Your task to perform on an android device: check battery use Image 0: 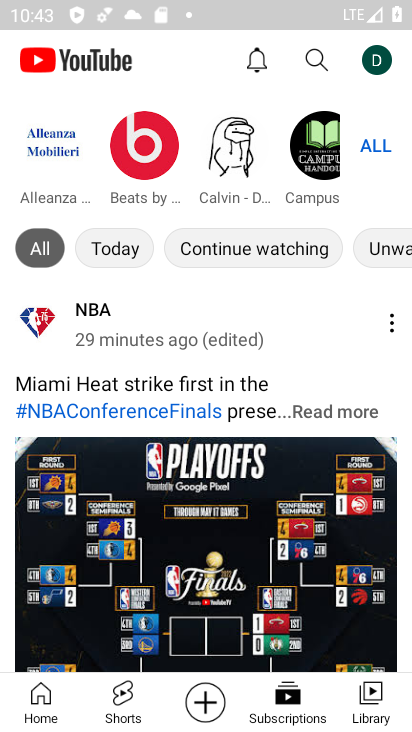
Step 0: press home button
Your task to perform on an android device: check battery use Image 1: 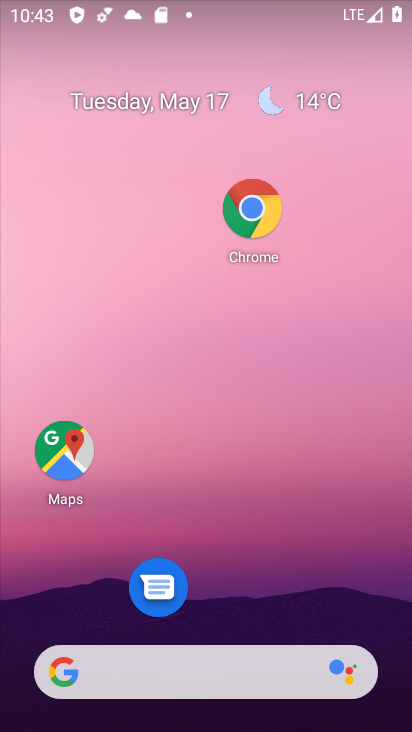
Step 1: drag from (283, 549) to (244, 103)
Your task to perform on an android device: check battery use Image 2: 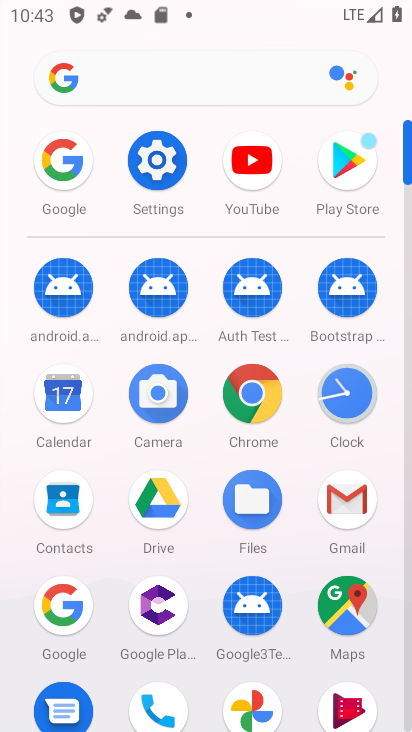
Step 2: click (163, 151)
Your task to perform on an android device: check battery use Image 3: 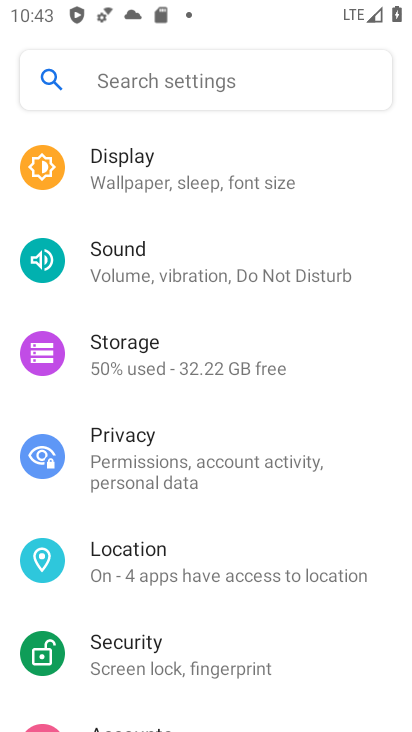
Step 3: drag from (279, 249) to (279, 488)
Your task to perform on an android device: check battery use Image 4: 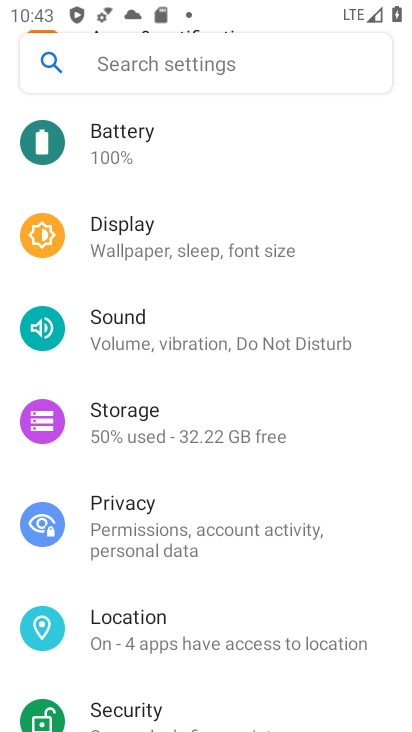
Step 4: click (195, 146)
Your task to perform on an android device: check battery use Image 5: 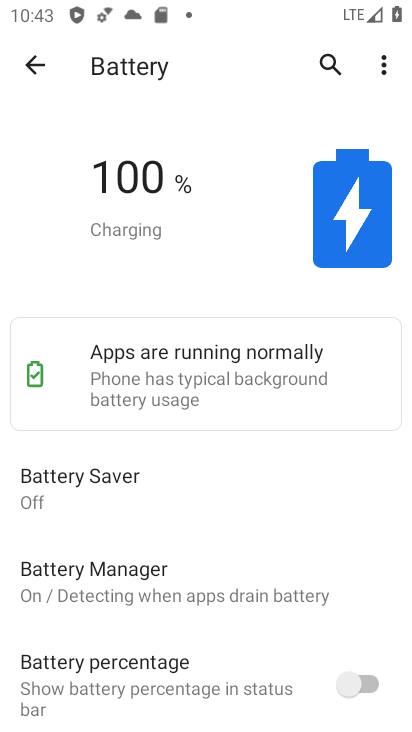
Step 5: click (383, 60)
Your task to perform on an android device: check battery use Image 6: 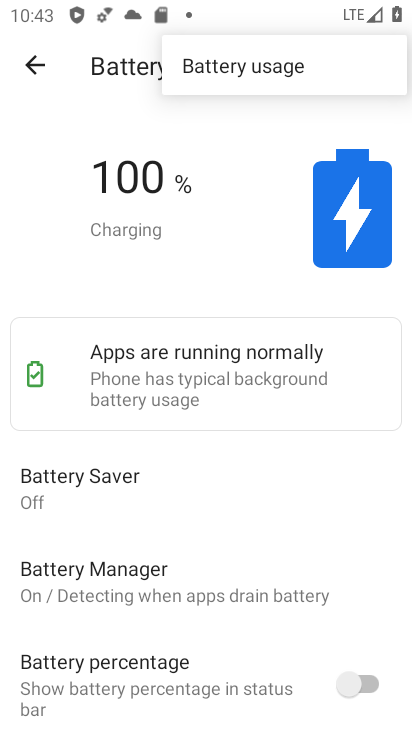
Step 6: click (317, 66)
Your task to perform on an android device: check battery use Image 7: 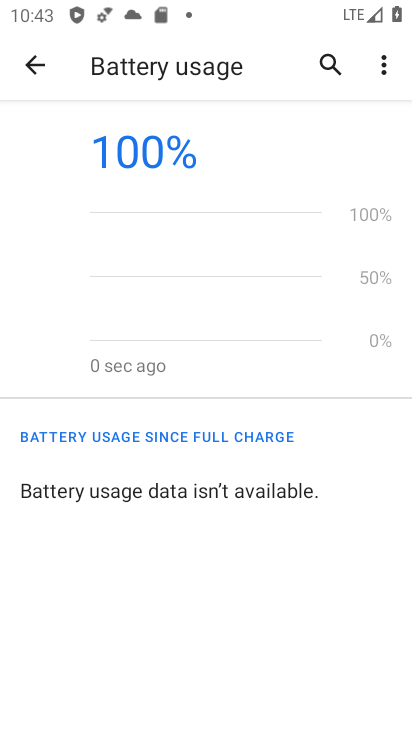
Step 7: task complete